Your task to perform on an android device: Show me the alarms in the clock app Image 0: 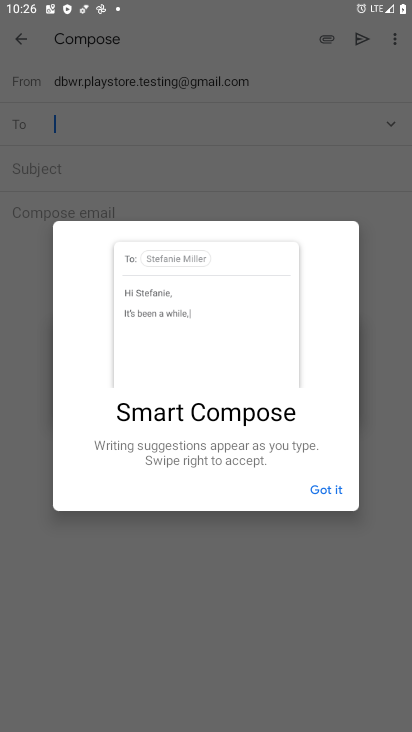
Step 0: press home button
Your task to perform on an android device: Show me the alarms in the clock app Image 1: 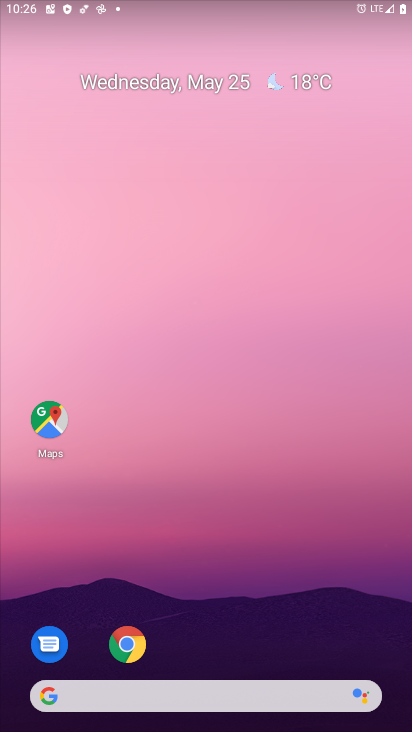
Step 1: drag from (238, 671) to (202, 108)
Your task to perform on an android device: Show me the alarms in the clock app Image 2: 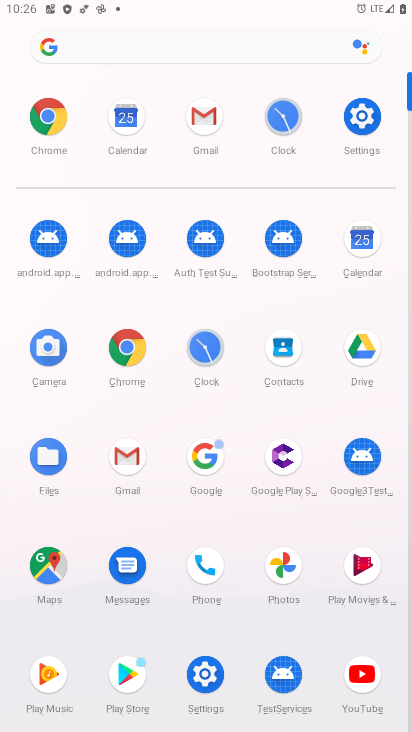
Step 2: click (281, 113)
Your task to perform on an android device: Show me the alarms in the clock app Image 3: 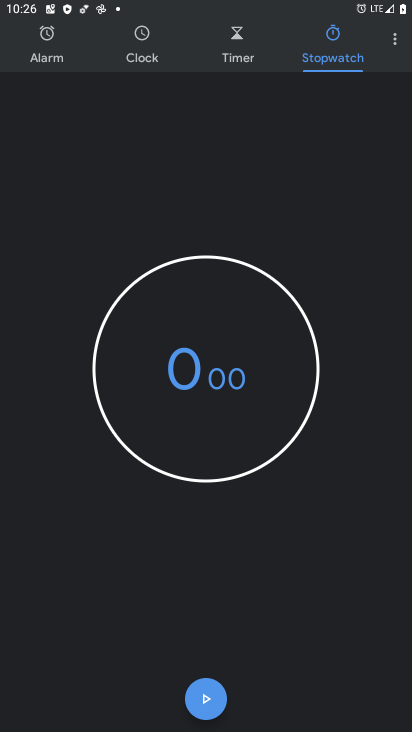
Step 3: click (49, 42)
Your task to perform on an android device: Show me the alarms in the clock app Image 4: 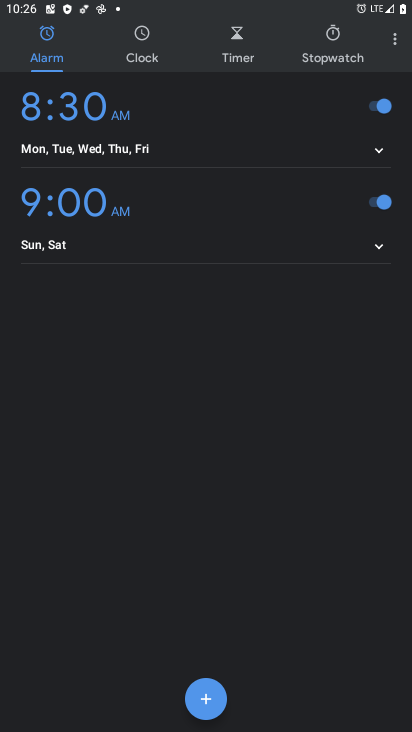
Step 4: task complete